Your task to perform on an android device: change the clock display to show seconds Image 0: 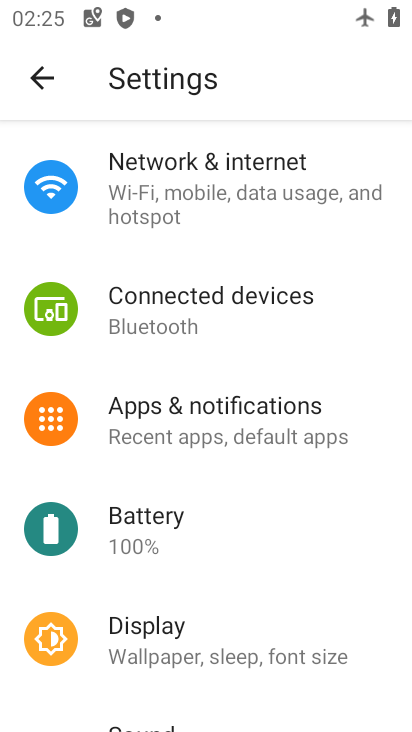
Step 0: press home button
Your task to perform on an android device: change the clock display to show seconds Image 1: 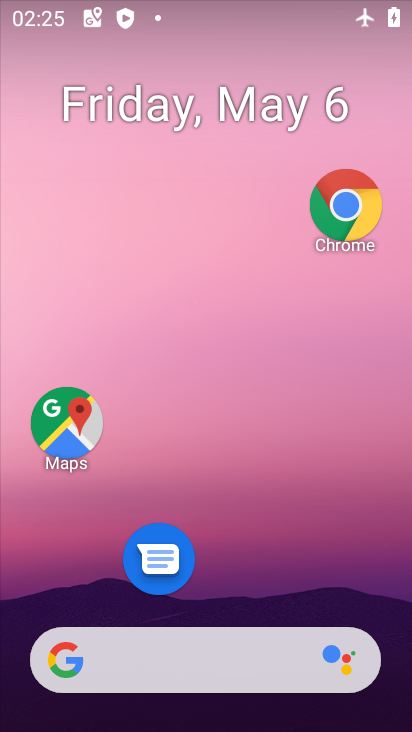
Step 1: drag from (114, 654) to (291, 77)
Your task to perform on an android device: change the clock display to show seconds Image 2: 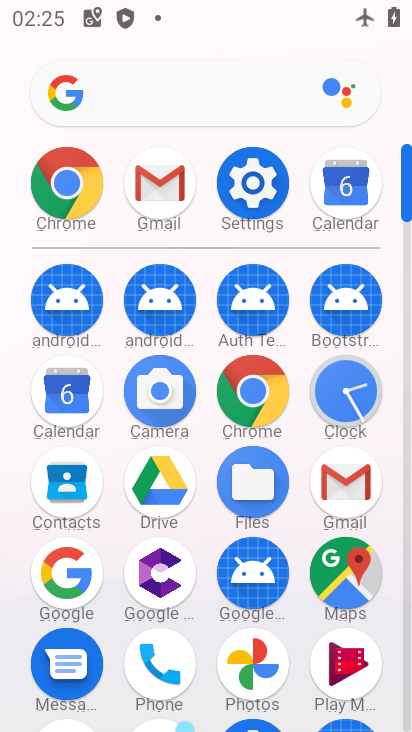
Step 2: click (334, 401)
Your task to perform on an android device: change the clock display to show seconds Image 3: 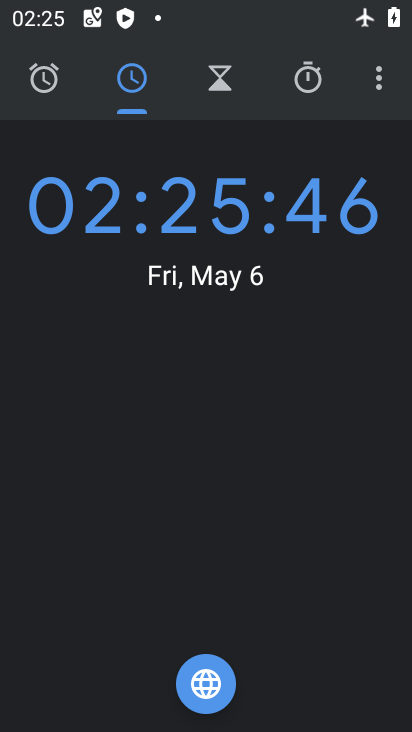
Step 3: click (382, 83)
Your task to perform on an android device: change the clock display to show seconds Image 4: 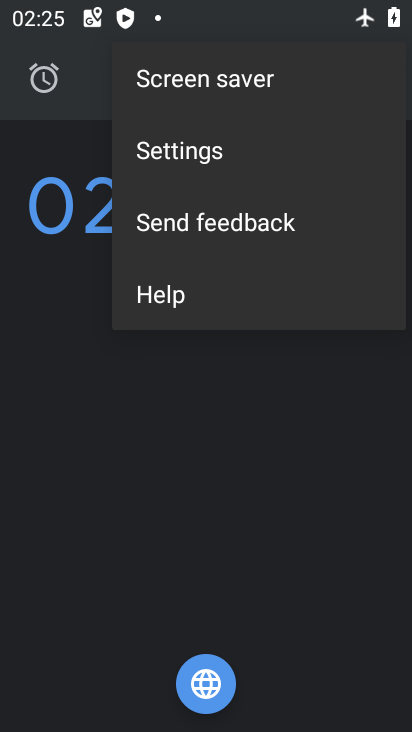
Step 4: click (211, 153)
Your task to perform on an android device: change the clock display to show seconds Image 5: 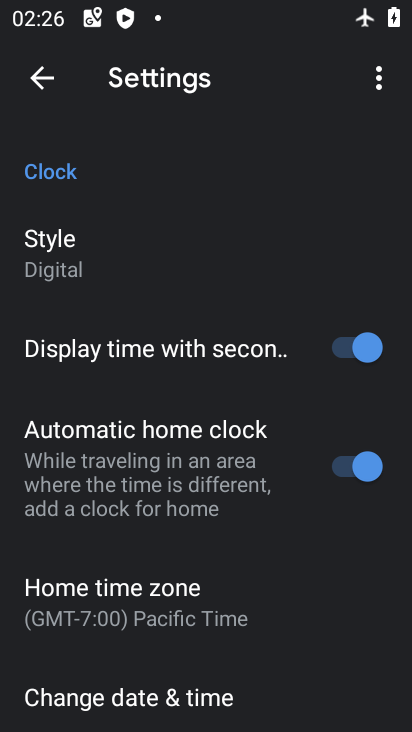
Step 5: task complete